Your task to perform on an android device: toggle priority inbox in the gmail app Image 0: 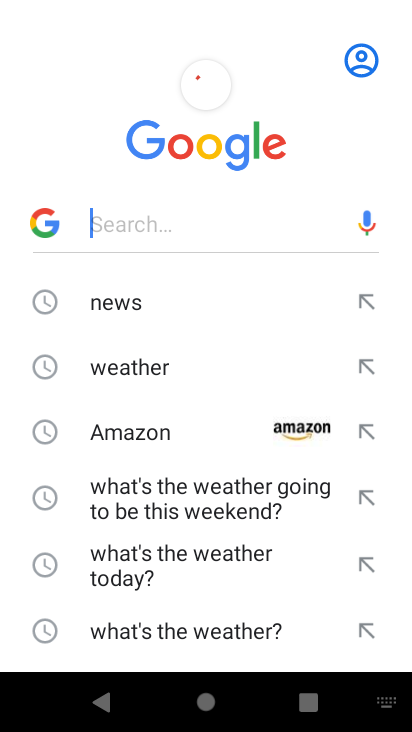
Step 0: press home button
Your task to perform on an android device: toggle priority inbox in the gmail app Image 1: 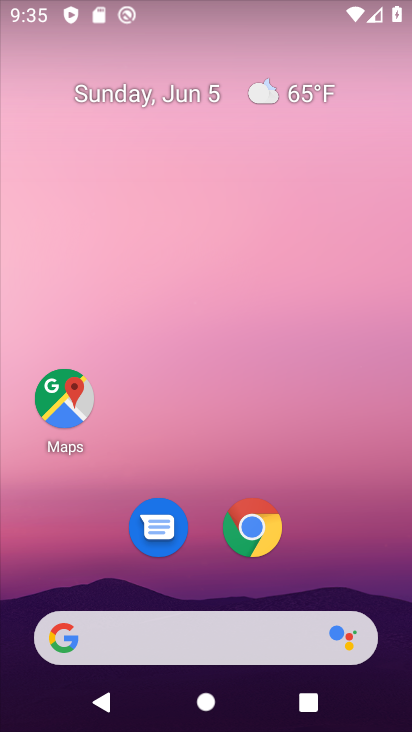
Step 1: drag from (170, 598) to (263, 62)
Your task to perform on an android device: toggle priority inbox in the gmail app Image 2: 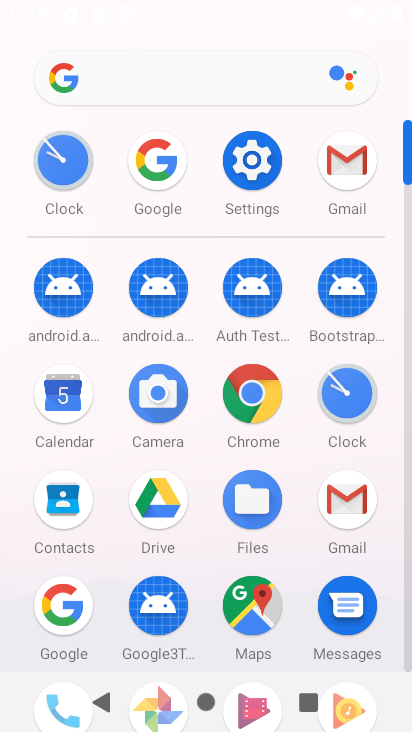
Step 2: click (345, 140)
Your task to perform on an android device: toggle priority inbox in the gmail app Image 3: 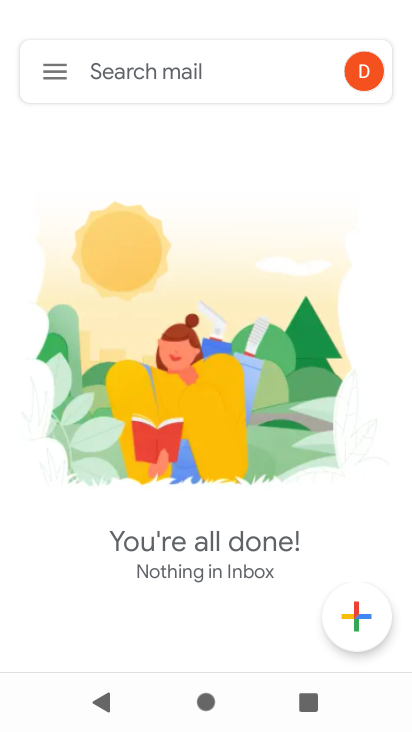
Step 3: click (62, 75)
Your task to perform on an android device: toggle priority inbox in the gmail app Image 4: 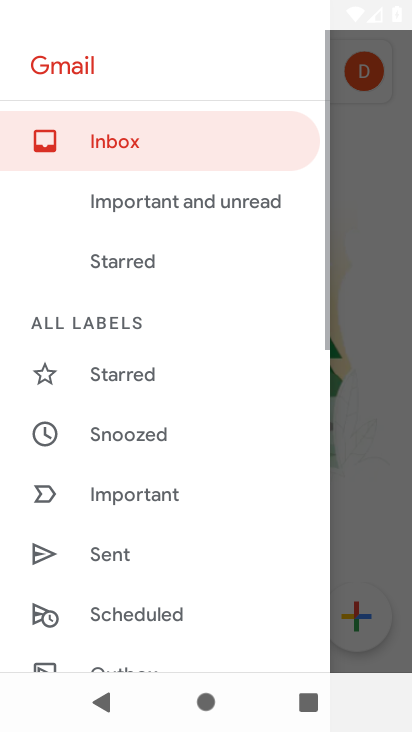
Step 4: drag from (143, 624) to (200, 69)
Your task to perform on an android device: toggle priority inbox in the gmail app Image 5: 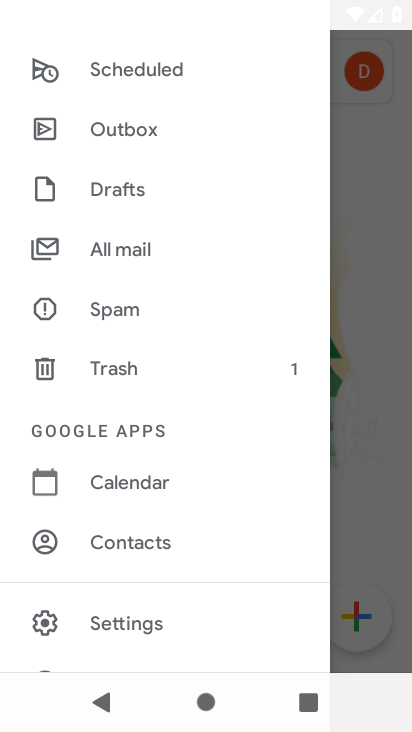
Step 5: click (144, 628)
Your task to perform on an android device: toggle priority inbox in the gmail app Image 6: 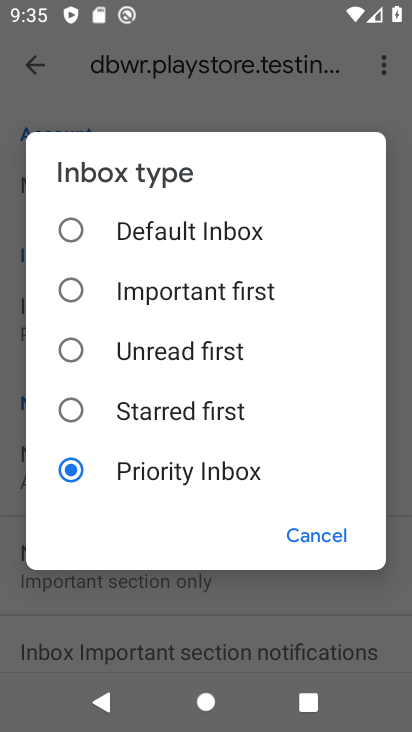
Step 6: task complete